Your task to perform on an android device: What is the recent news? Image 0: 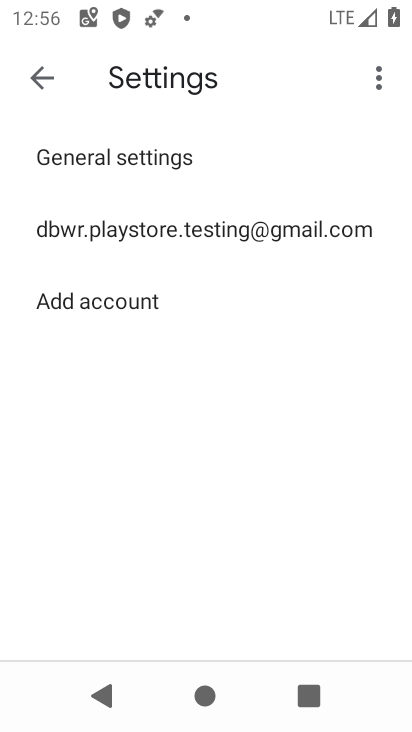
Step 0: press home button
Your task to perform on an android device: What is the recent news? Image 1: 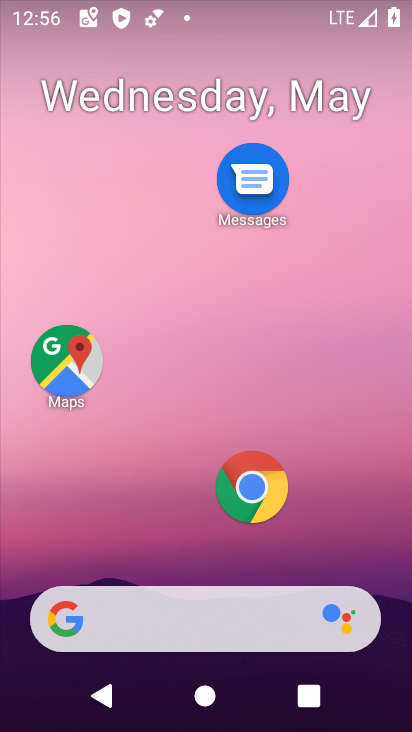
Step 1: click (218, 602)
Your task to perform on an android device: What is the recent news? Image 2: 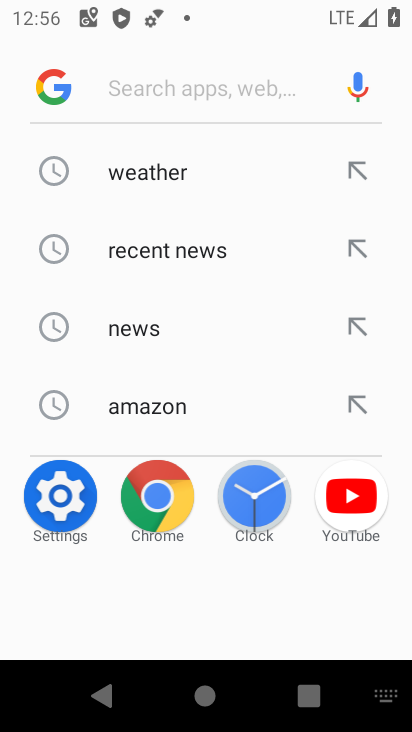
Step 2: click (175, 253)
Your task to perform on an android device: What is the recent news? Image 3: 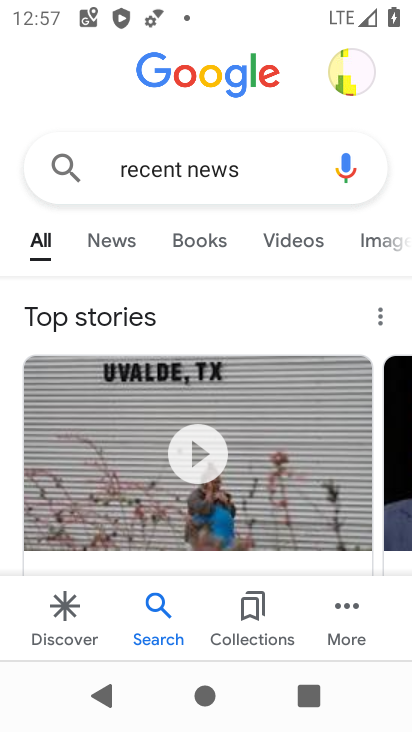
Step 3: task complete